Your task to perform on an android device: Open privacy settings Image 0: 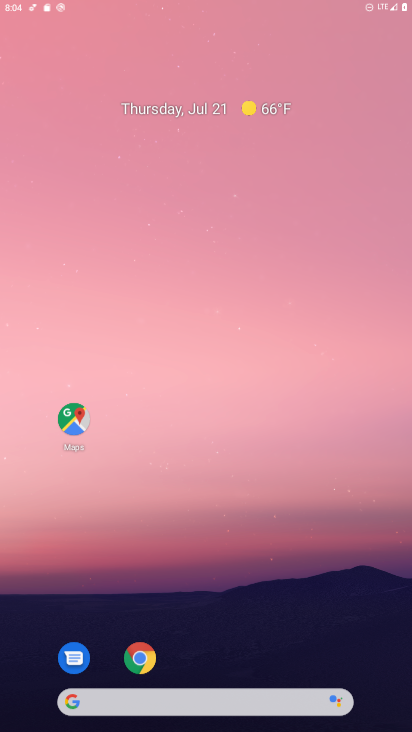
Step 0: click (245, 52)
Your task to perform on an android device: Open privacy settings Image 1: 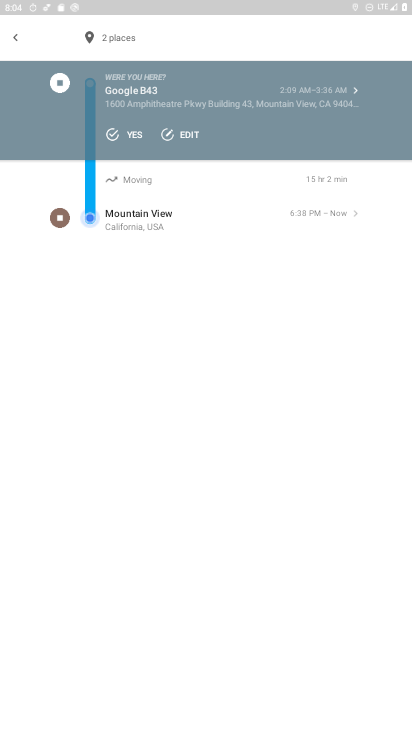
Step 1: press home button
Your task to perform on an android device: Open privacy settings Image 2: 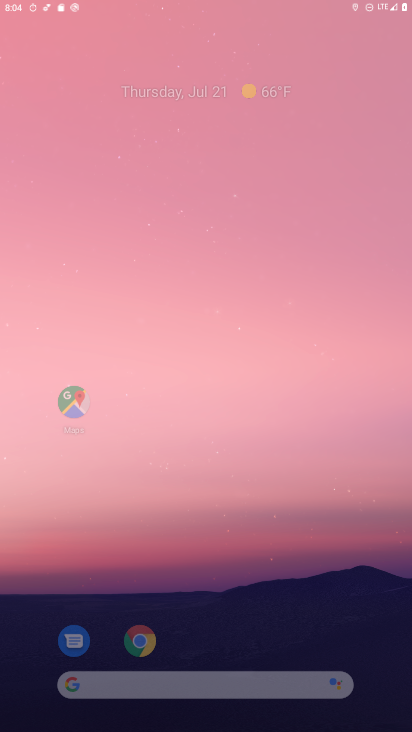
Step 2: drag from (163, 578) to (318, 1)
Your task to perform on an android device: Open privacy settings Image 3: 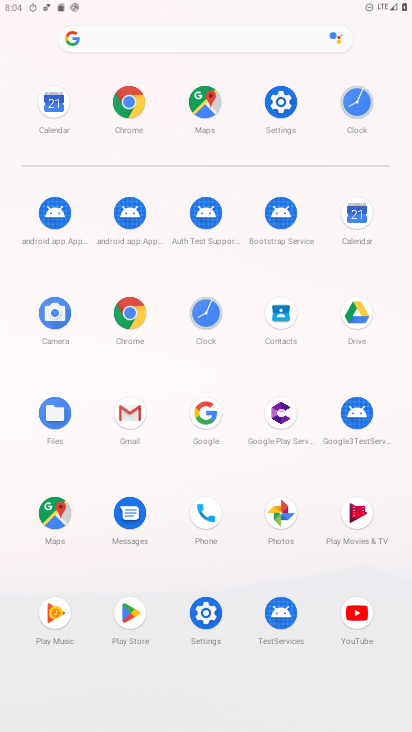
Step 3: click (275, 107)
Your task to perform on an android device: Open privacy settings Image 4: 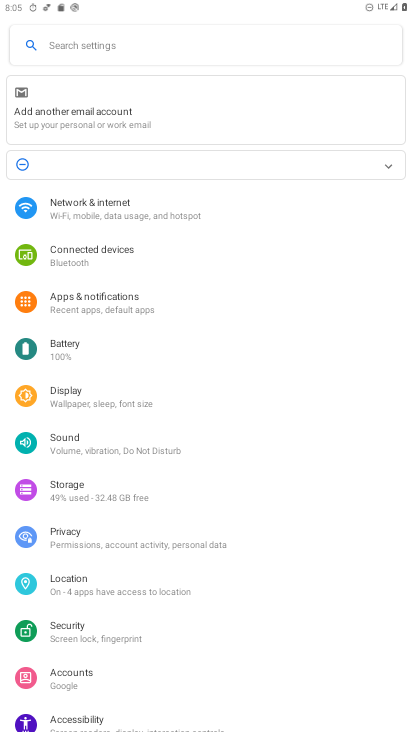
Step 4: click (91, 536)
Your task to perform on an android device: Open privacy settings Image 5: 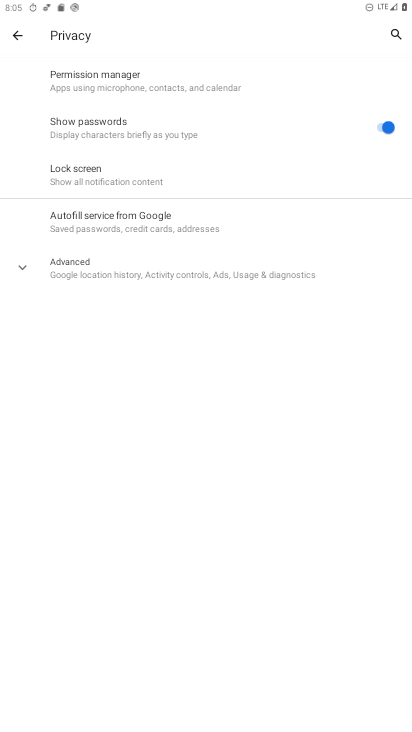
Step 5: task complete